Your task to perform on an android device: Open wifi settings Image 0: 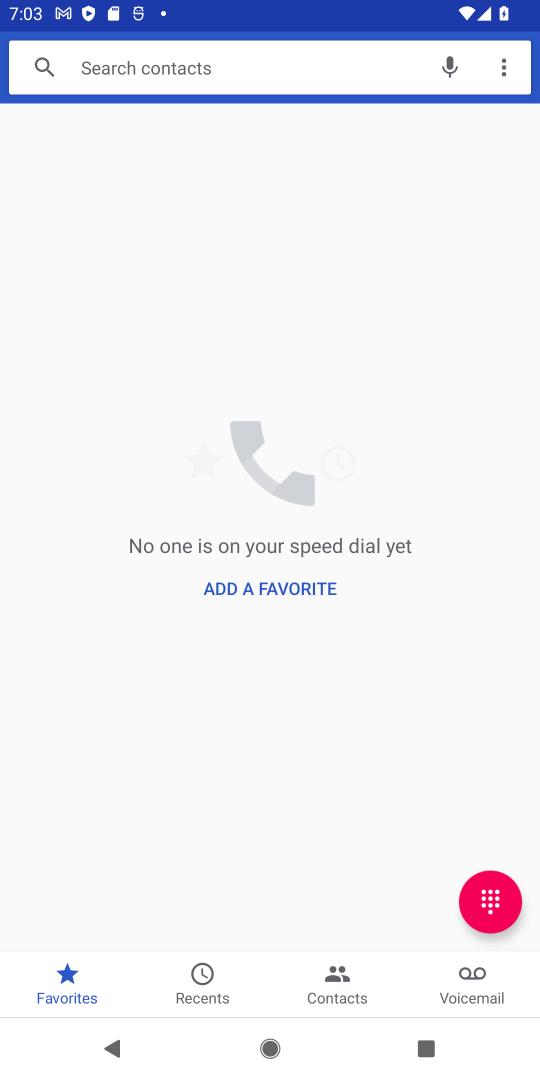
Step 0: press home button
Your task to perform on an android device: Open wifi settings Image 1: 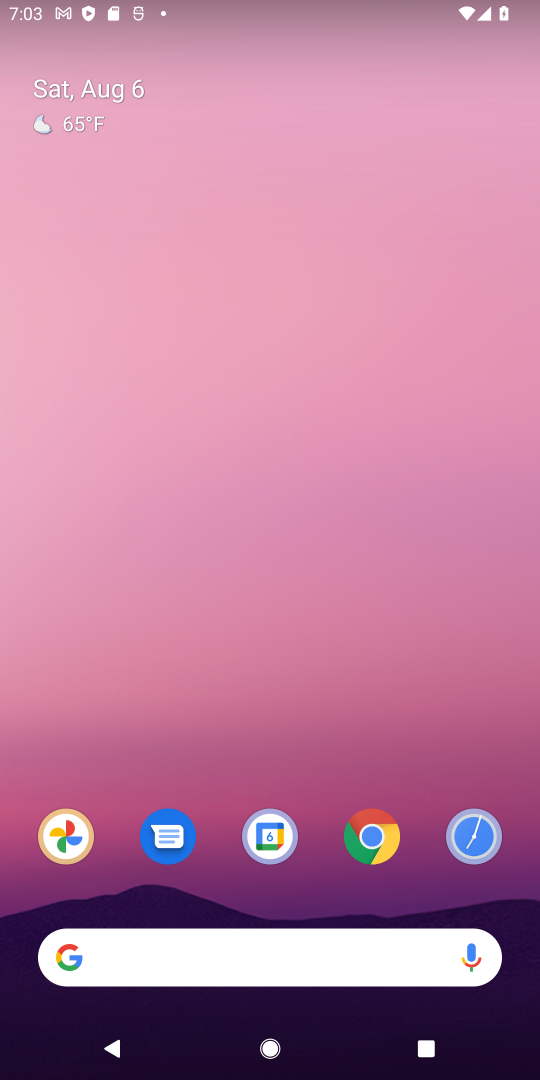
Step 1: drag from (451, 886) to (207, 36)
Your task to perform on an android device: Open wifi settings Image 2: 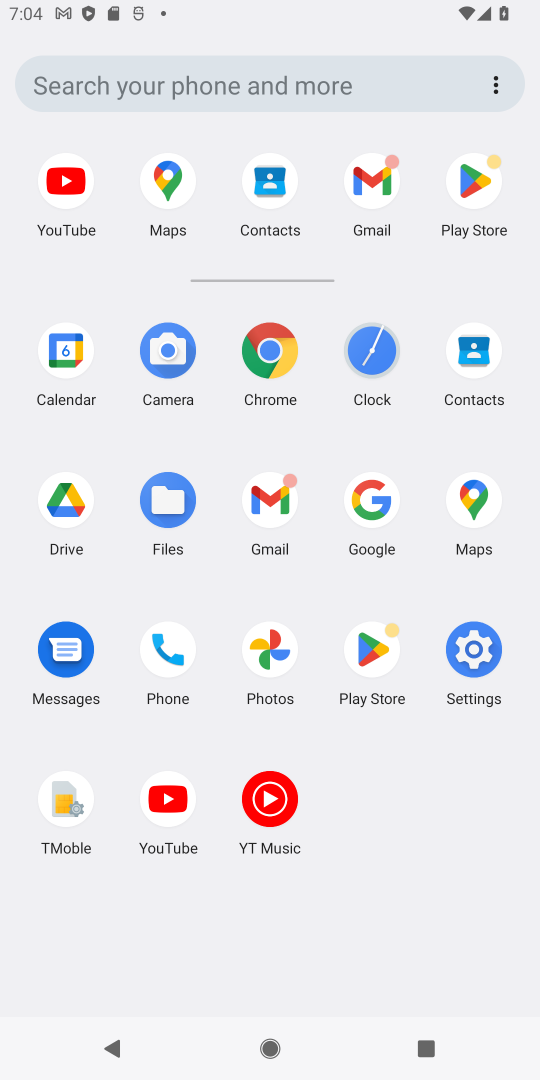
Step 2: click (487, 682)
Your task to perform on an android device: Open wifi settings Image 3: 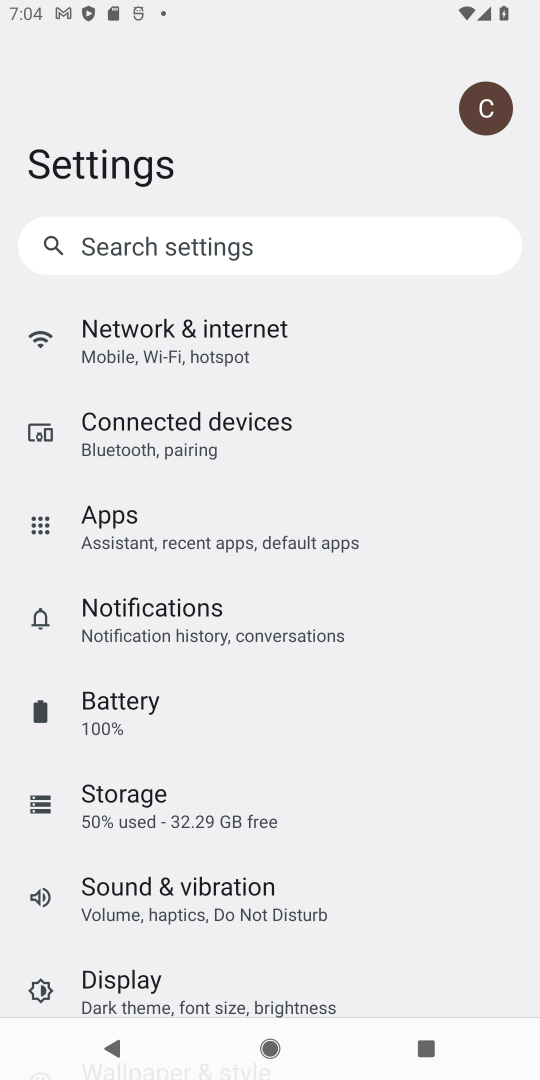
Step 3: click (197, 327)
Your task to perform on an android device: Open wifi settings Image 4: 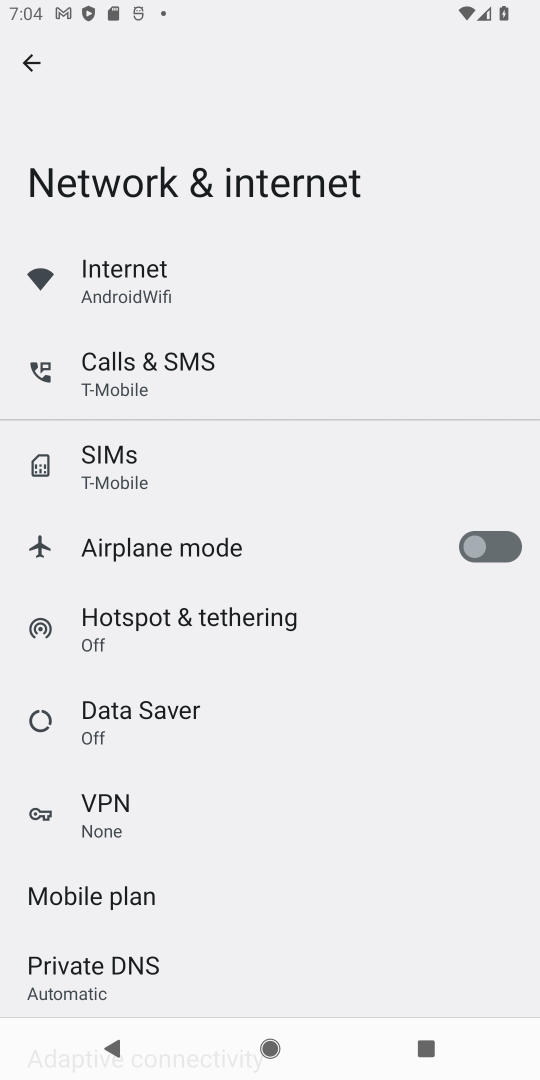
Step 4: click (111, 279)
Your task to perform on an android device: Open wifi settings Image 5: 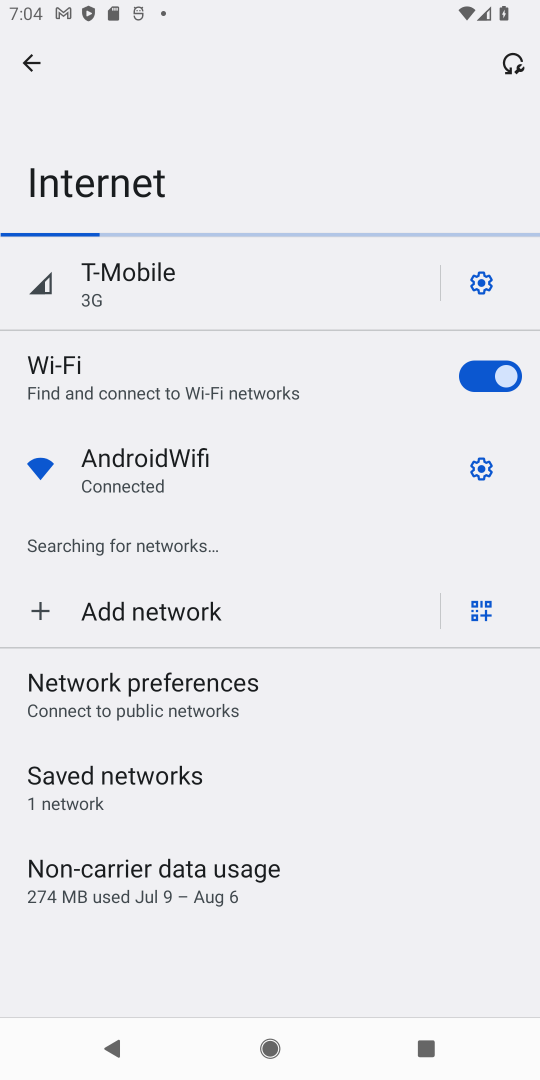
Step 5: click (189, 466)
Your task to perform on an android device: Open wifi settings Image 6: 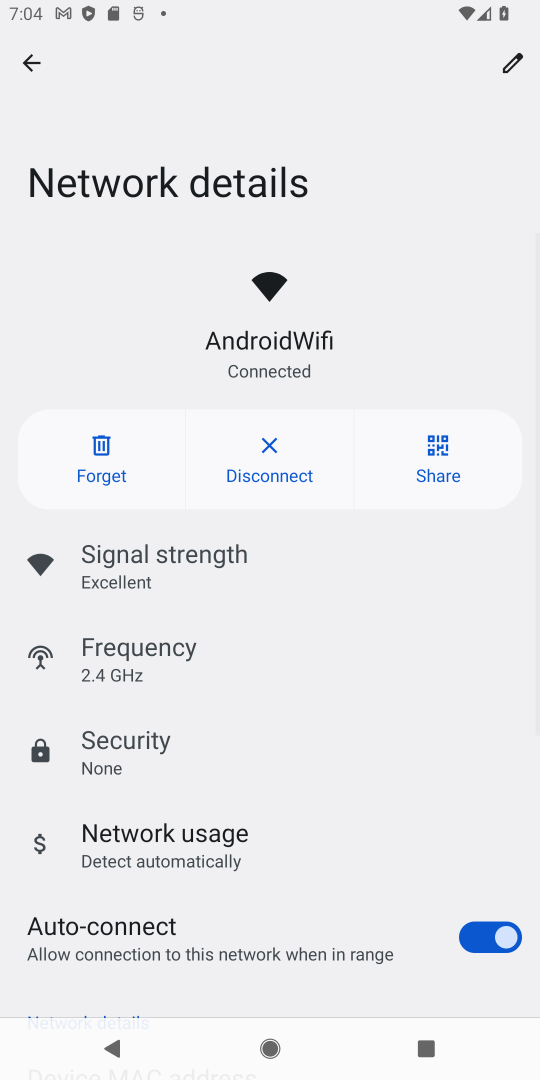
Step 6: task complete